Your task to perform on an android device: See recent photos Image 0: 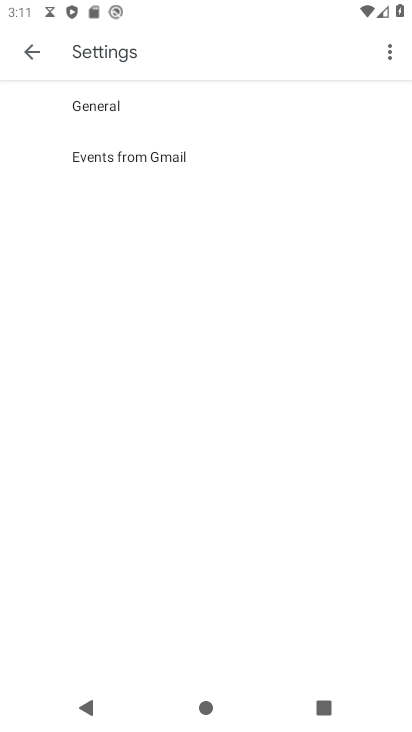
Step 0: press back button
Your task to perform on an android device: See recent photos Image 1: 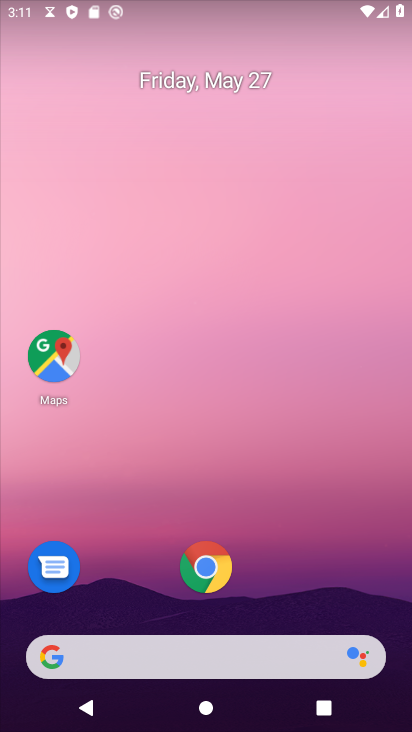
Step 1: drag from (125, 543) to (186, 133)
Your task to perform on an android device: See recent photos Image 2: 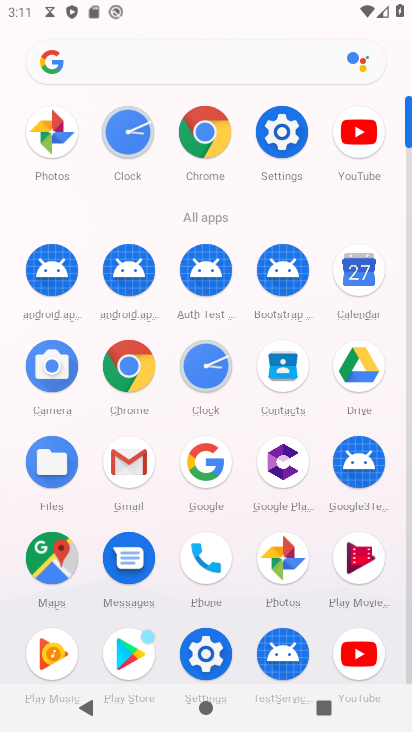
Step 2: click (271, 558)
Your task to perform on an android device: See recent photos Image 3: 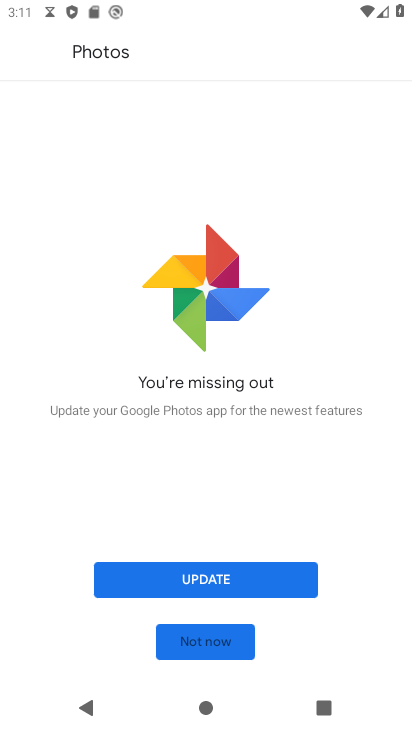
Step 3: click (210, 643)
Your task to perform on an android device: See recent photos Image 4: 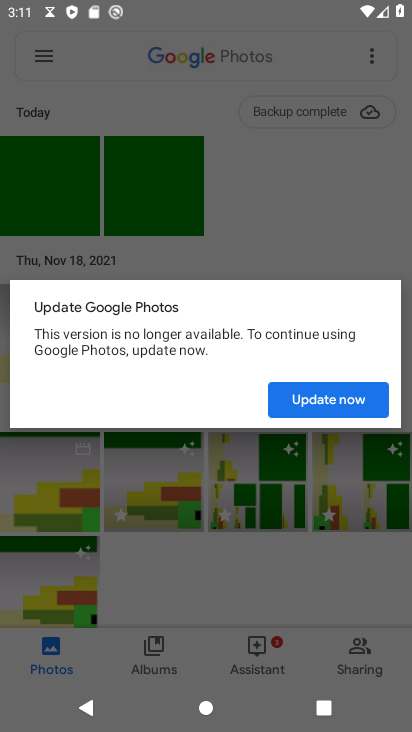
Step 4: click (318, 398)
Your task to perform on an android device: See recent photos Image 5: 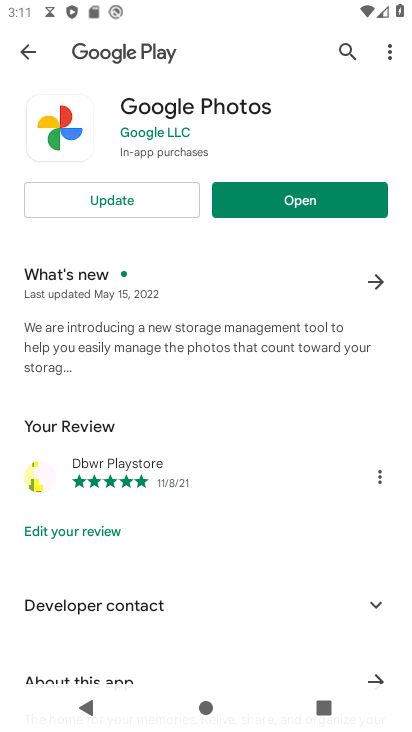
Step 5: click (304, 202)
Your task to perform on an android device: See recent photos Image 6: 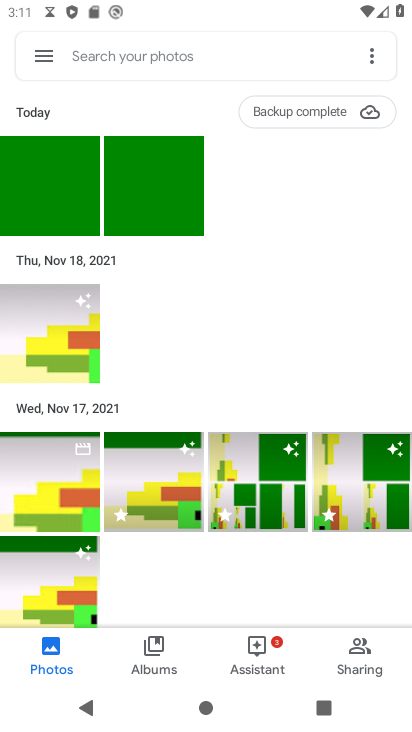
Step 6: click (57, 643)
Your task to perform on an android device: See recent photos Image 7: 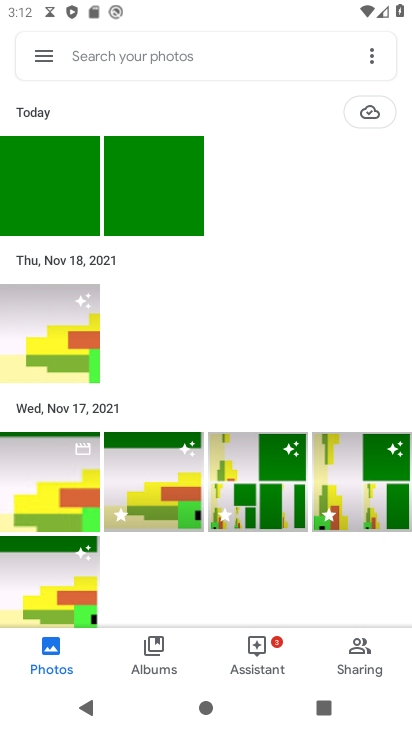
Step 7: task complete